Your task to perform on an android device: Open the calendar app, open the side menu, and click the "Day" option Image 0: 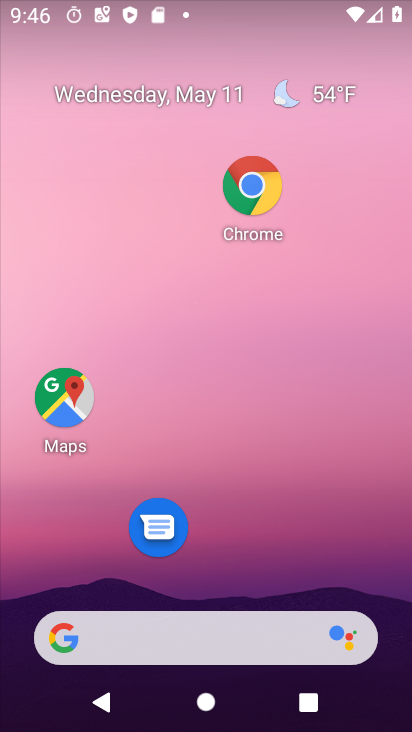
Step 0: drag from (290, 533) to (271, 67)
Your task to perform on an android device: Open the calendar app, open the side menu, and click the "Day" option Image 1: 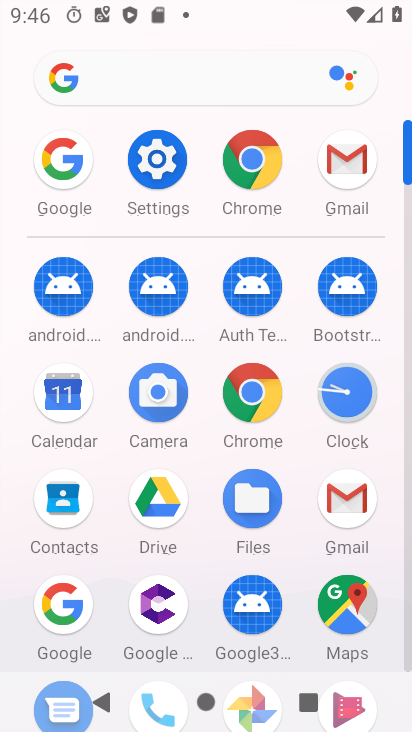
Step 1: click (70, 411)
Your task to perform on an android device: Open the calendar app, open the side menu, and click the "Day" option Image 2: 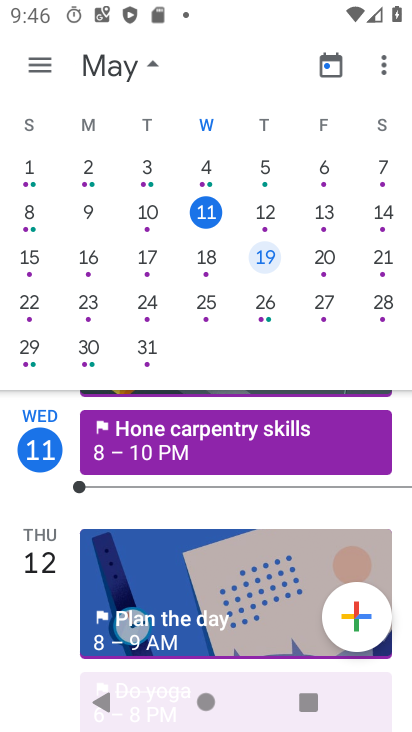
Step 2: click (45, 66)
Your task to perform on an android device: Open the calendar app, open the side menu, and click the "Day" option Image 3: 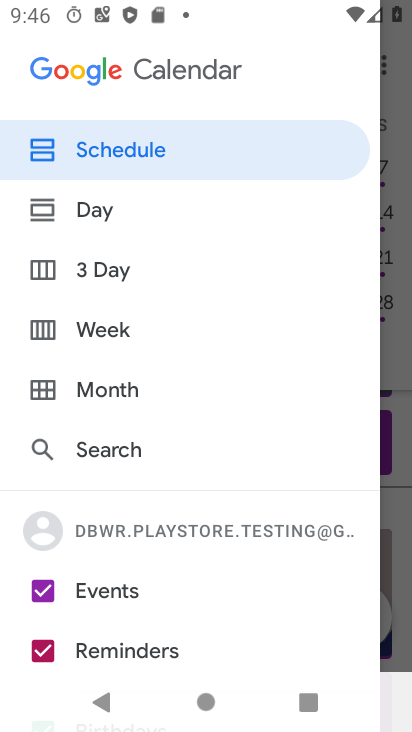
Step 3: click (389, 89)
Your task to perform on an android device: Open the calendar app, open the side menu, and click the "Day" option Image 4: 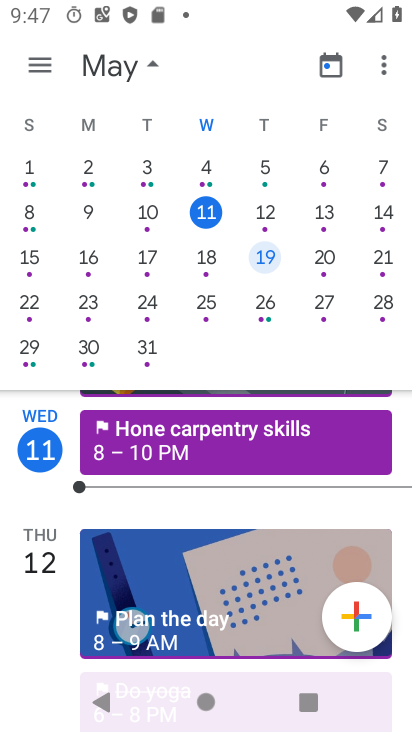
Step 4: click (206, 215)
Your task to perform on an android device: Open the calendar app, open the side menu, and click the "Day" option Image 5: 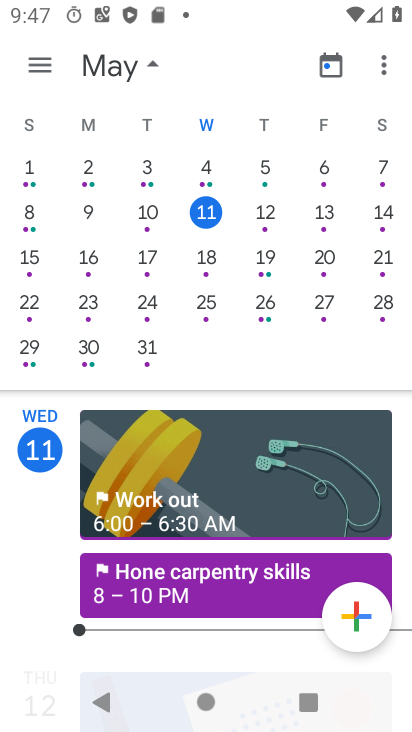
Step 5: click (42, 66)
Your task to perform on an android device: Open the calendar app, open the side menu, and click the "Day" option Image 6: 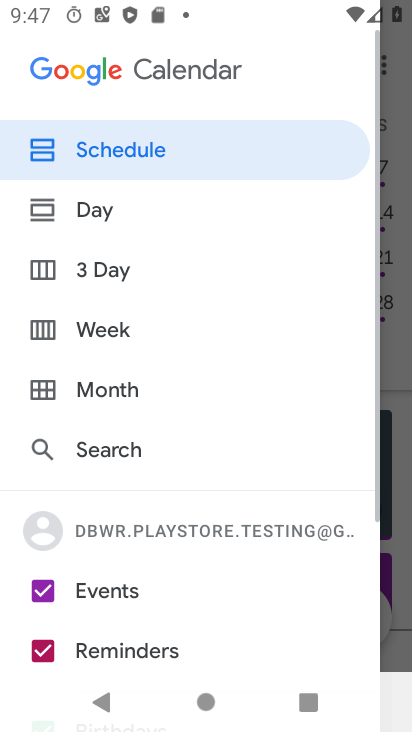
Step 6: click (179, 220)
Your task to perform on an android device: Open the calendar app, open the side menu, and click the "Day" option Image 7: 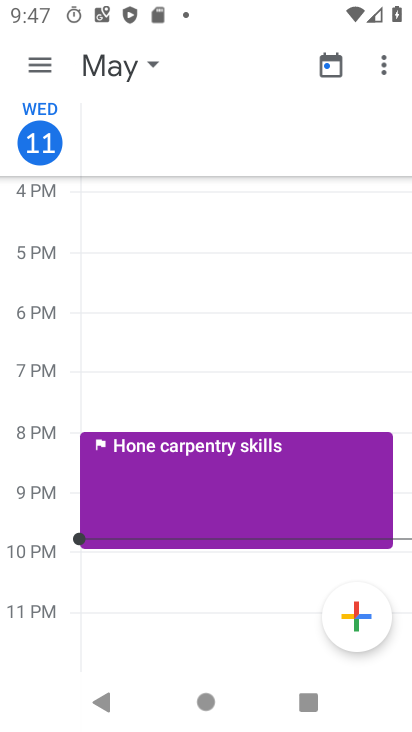
Step 7: task complete